Your task to perform on an android device: change notification settings in the gmail app Image 0: 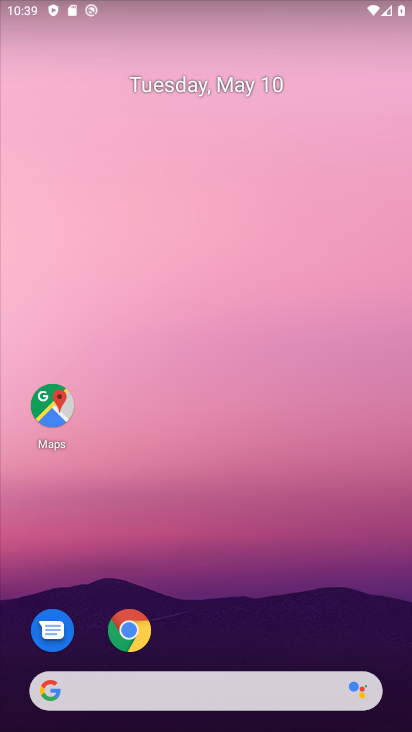
Step 0: drag from (217, 570) to (313, 73)
Your task to perform on an android device: change notification settings in the gmail app Image 1: 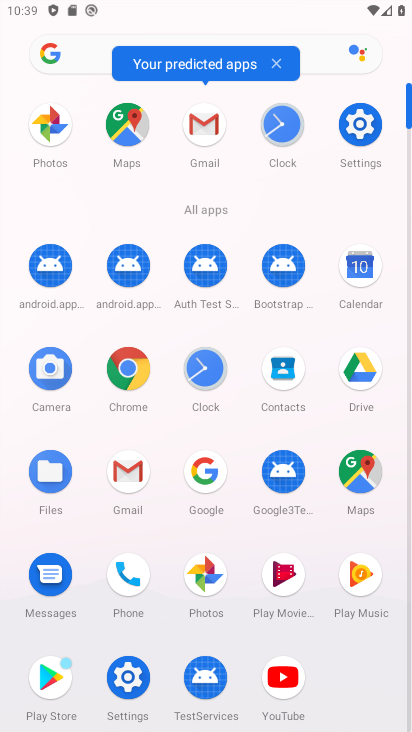
Step 1: click (124, 475)
Your task to perform on an android device: change notification settings in the gmail app Image 2: 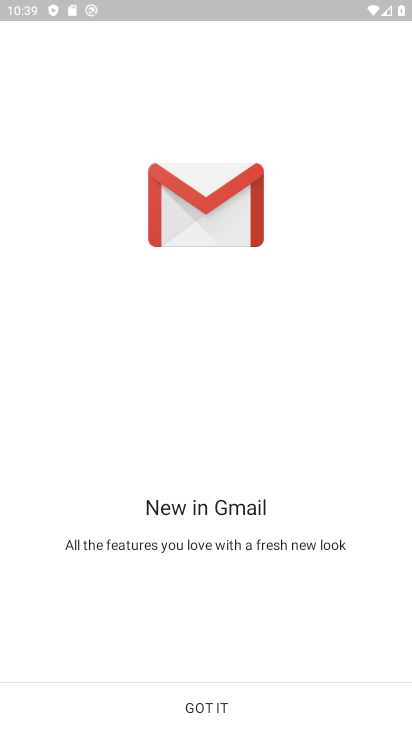
Step 2: click (189, 724)
Your task to perform on an android device: change notification settings in the gmail app Image 3: 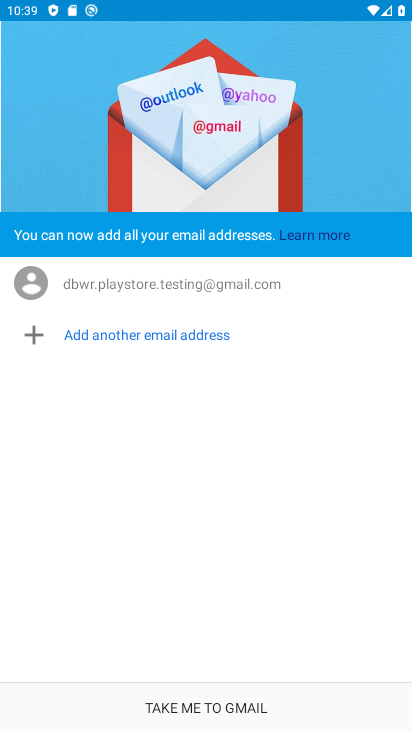
Step 3: click (226, 711)
Your task to perform on an android device: change notification settings in the gmail app Image 4: 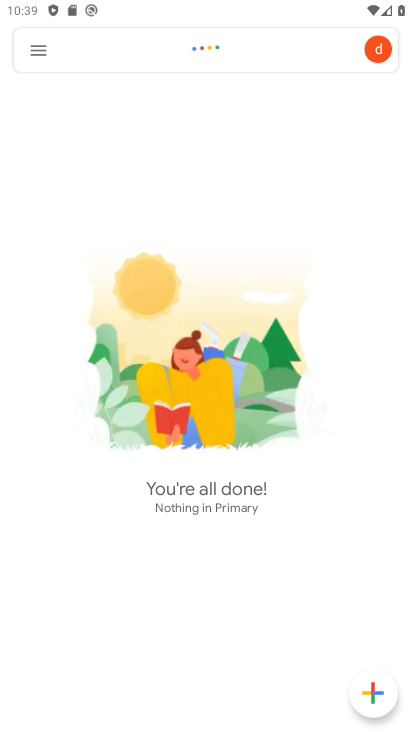
Step 4: click (33, 44)
Your task to perform on an android device: change notification settings in the gmail app Image 5: 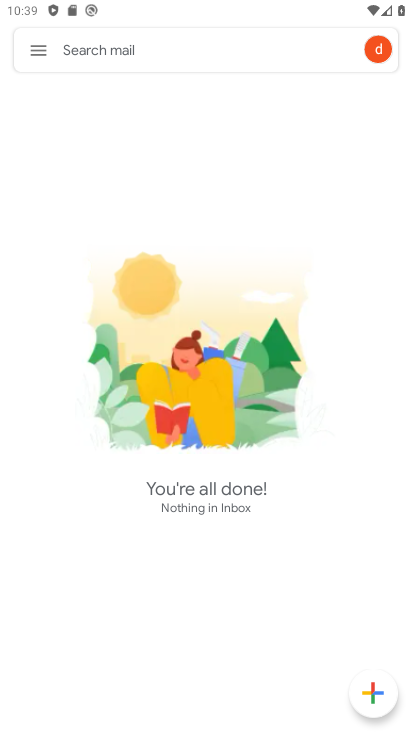
Step 5: click (47, 54)
Your task to perform on an android device: change notification settings in the gmail app Image 6: 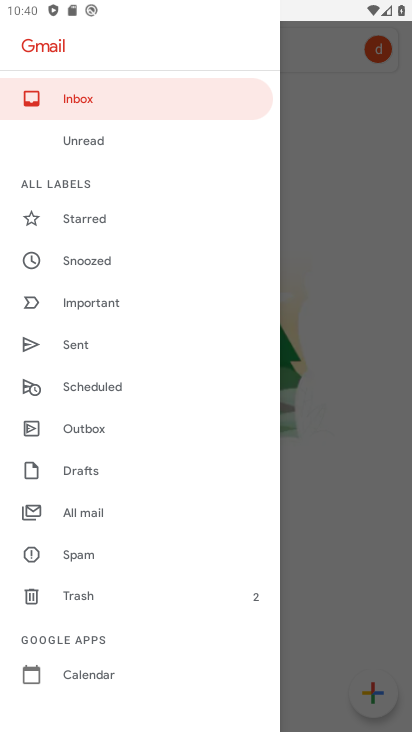
Step 6: drag from (143, 648) to (207, 252)
Your task to perform on an android device: change notification settings in the gmail app Image 7: 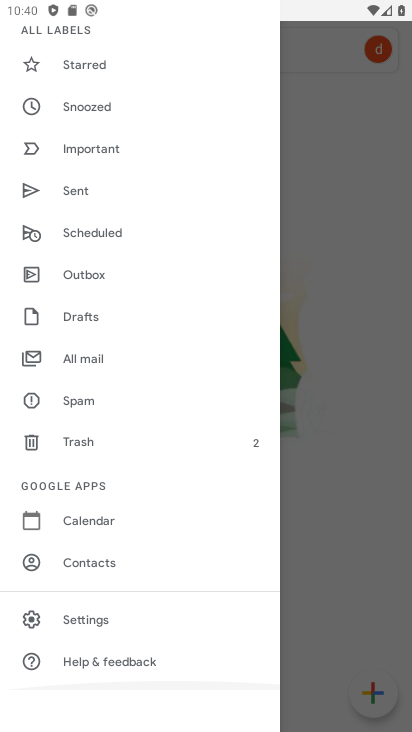
Step 7: click (144, 623)
Your task to perform on an android device: change notification settings in the gmail app Image 8: 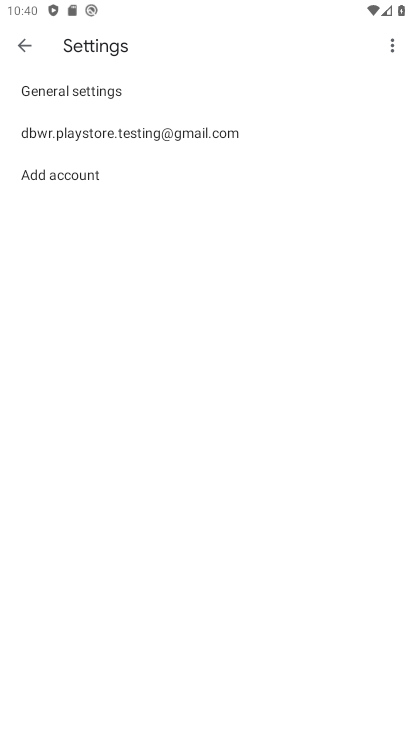
Step 8: click (260, 138)
Your task to perform on an android device: change notification settings in the gmail app Image 9: 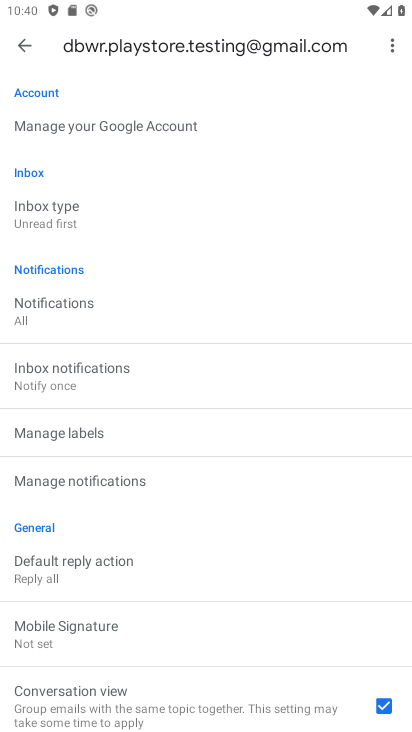
Step 9: click (109, 476)
Your task to perform on an android device: change notification settings in the gmail app Image 10: 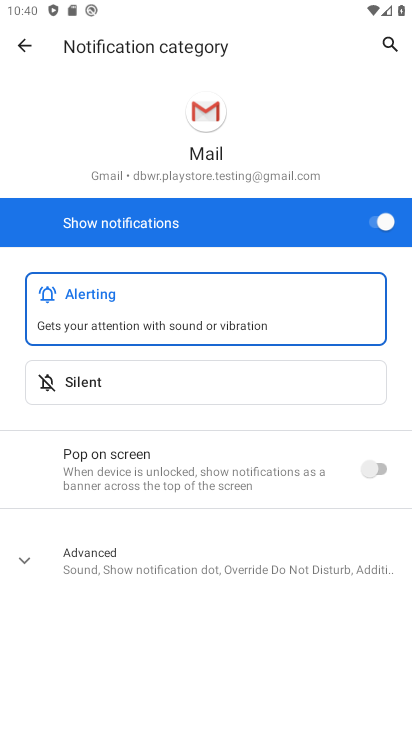
Step 10: click (267, 386)
Your task to perform on an android device: change notification settings in the gmail app Image 11: 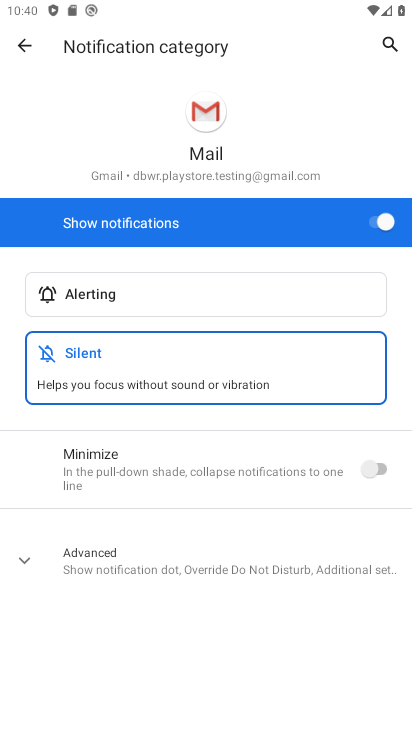
Step 11: click (377, 468)
Your task to perform on an android device: change notification settings in the gmail app Image 12: 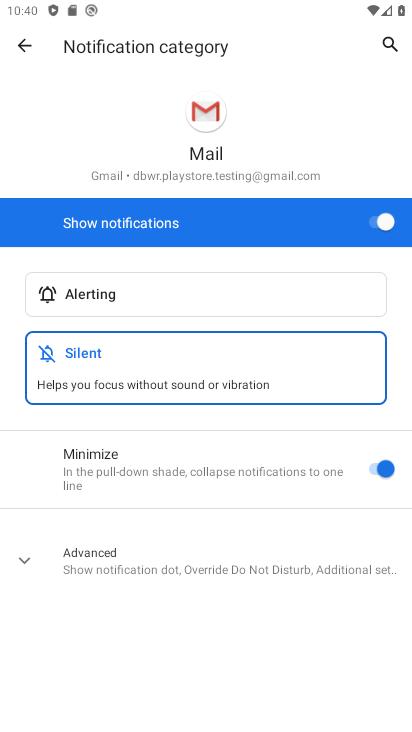
Step 12: click (223, 564)
Your task to perform on an android device: change notification settings in the gmail app Image 13: 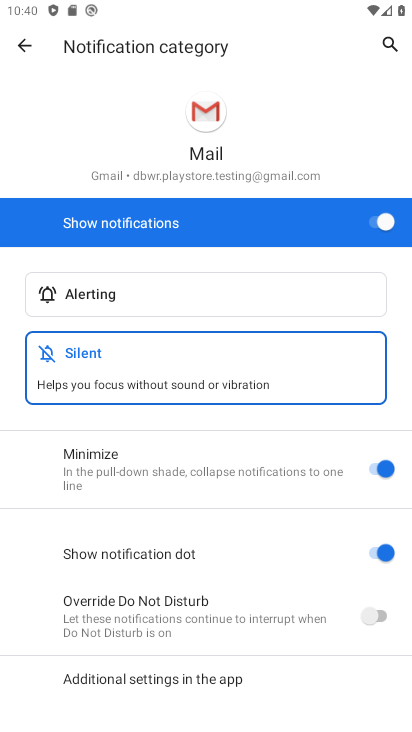
Step 13: click (380, 601)
Your task to perform on an android device: change notification settings in the gmail app Image 14: 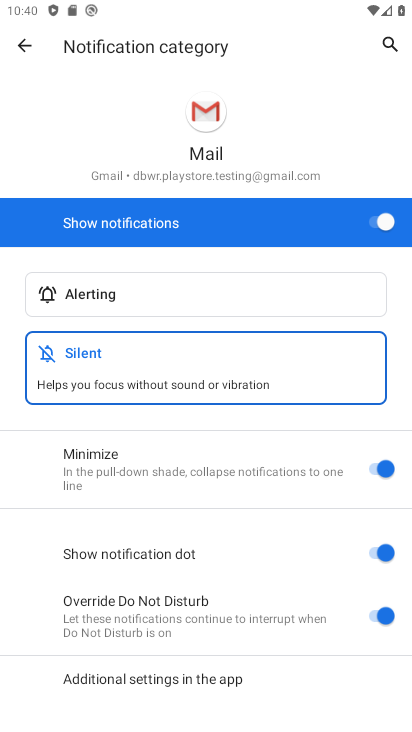
Step 14: drag from (136, 621) to (207, 361)
Your task to perform on an android device: change notification settings in the gmail app Image 15: 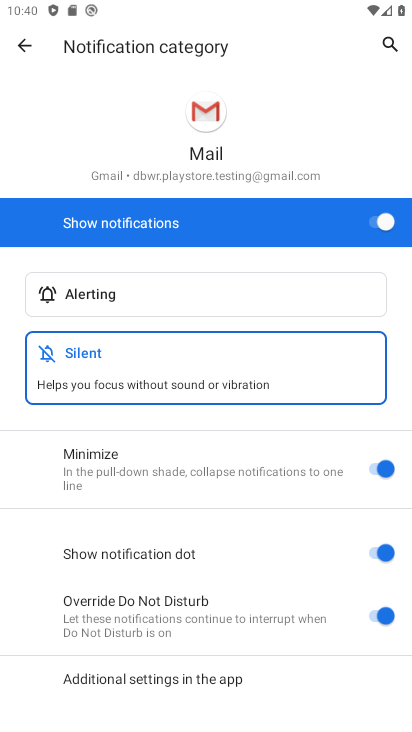
Step 15: click (213, 682)
Your task to perform on an android device: change notification settings in the gmail app Image 16: 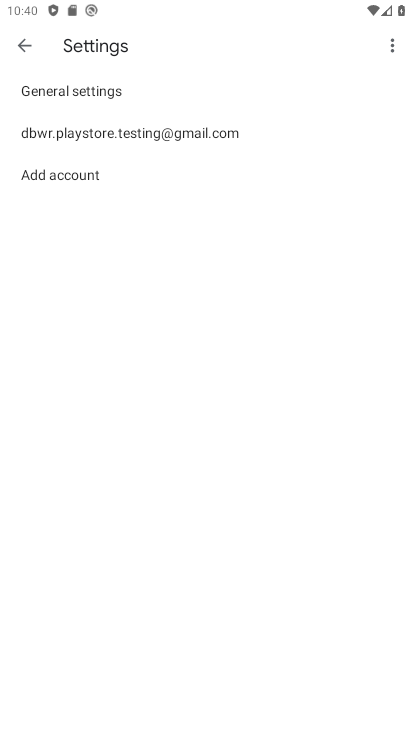
Step 16: click (150, 75)
Your task to perform on an android device: change notification settings in the gmail app Image 17: 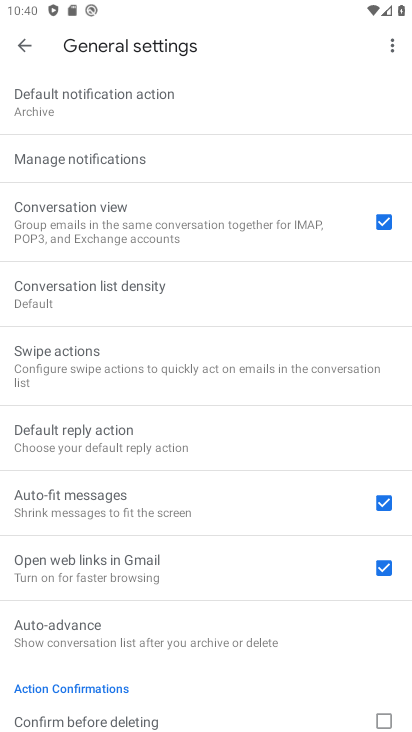
Step 17: click (122, 149)
Your task to perform on an android device: change notification settings in the gmail app Image 18: 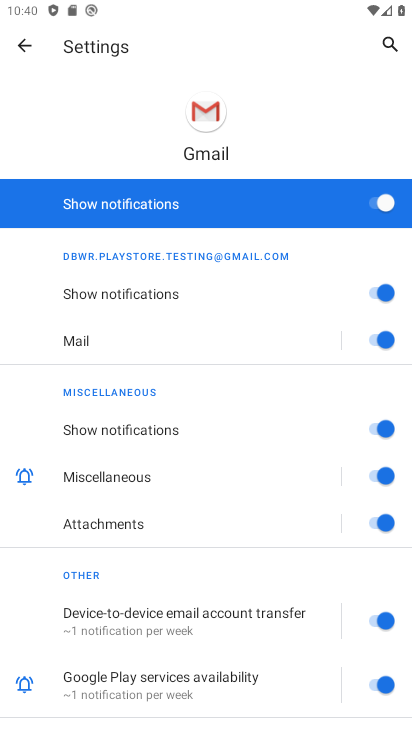
Step 18: click (389, 340)
Your task to perform on an android device: change notification settings in the gmail app Image 19: 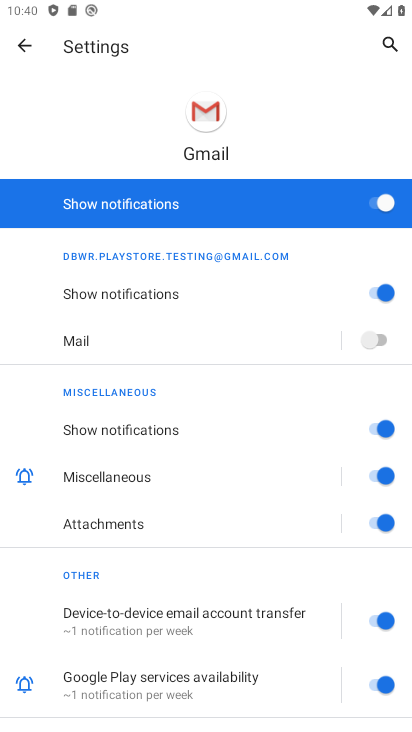
Step 19: click (379, 530)
Your task to perform on an android device: change notification settings in the gmail app Image 20: 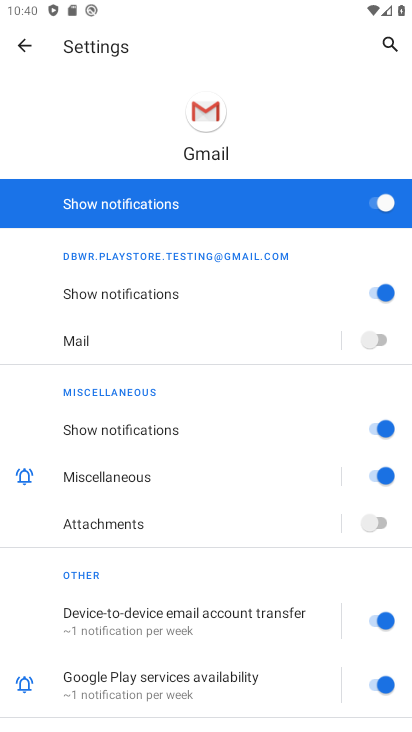
Step 20: click (372, 675)
Your task to perform on an android device: change notification settings in the gmail app Image 21: 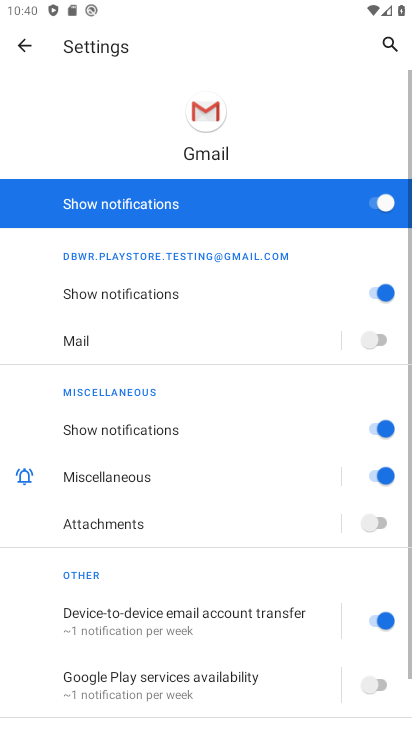
Step 21: drag from (177, 677) to (238, 283)
Your task to perform on an android device: change notification settings in the gmail app Image 22: 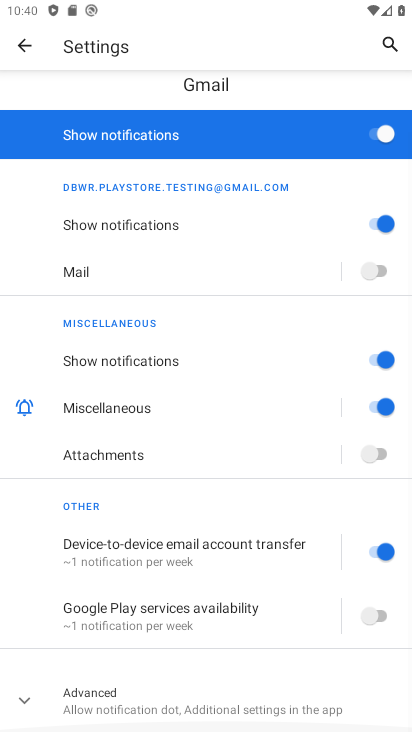
Step 22: click (255, 711)
Your task to perform on an android device: change notification settings in the gmail app Image 23: 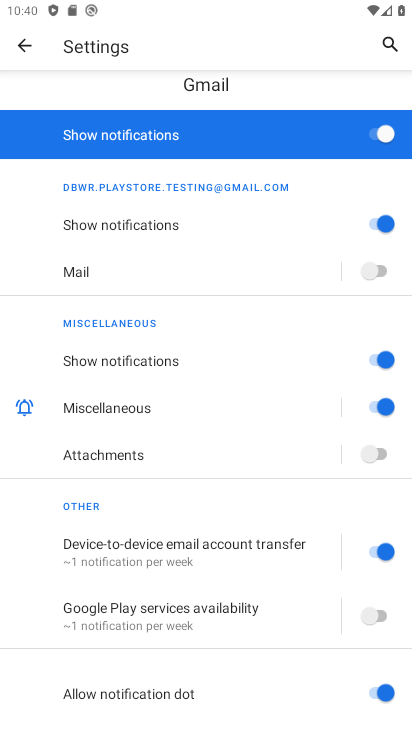
Step 23: drag from (226, 673) to (274, 301)
Your task to perform on an android device: change notification settings in the gmail app Image 24: 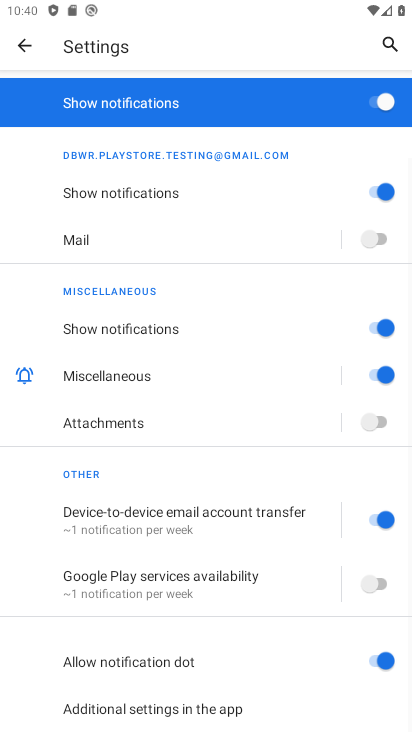
Step 24: click (382, 658)
Your task to perform on an android device: change notification settings in the gmail app Image 25: 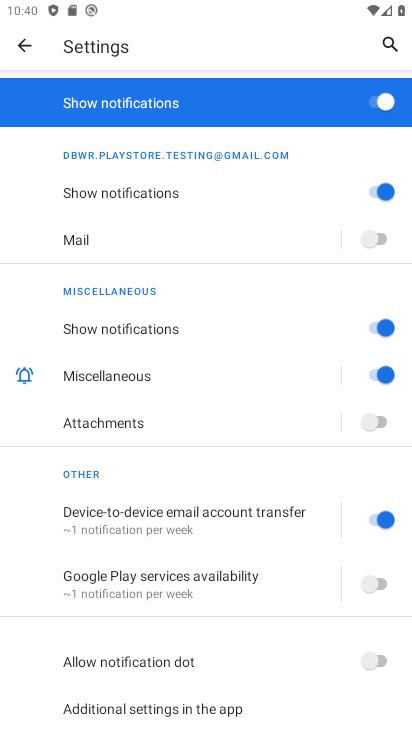
Step 25: task complete